Your task to perform on an android device: Go to Google maps Image 0: 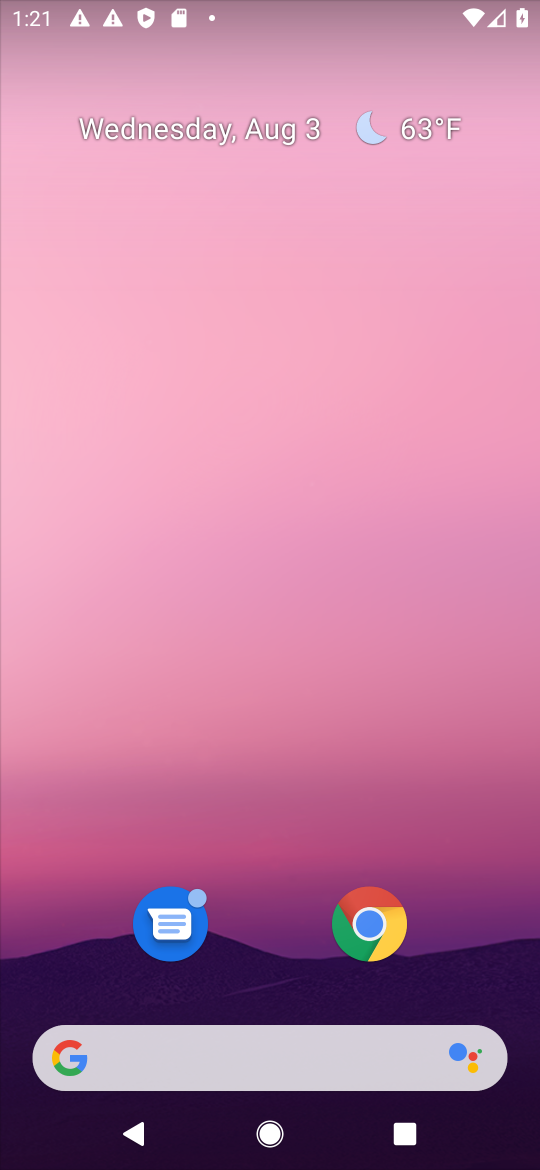
Step 0: drag from (275, 958) to (283, 92)
Your task to perform on an android device: Go to Google maps Image 1: 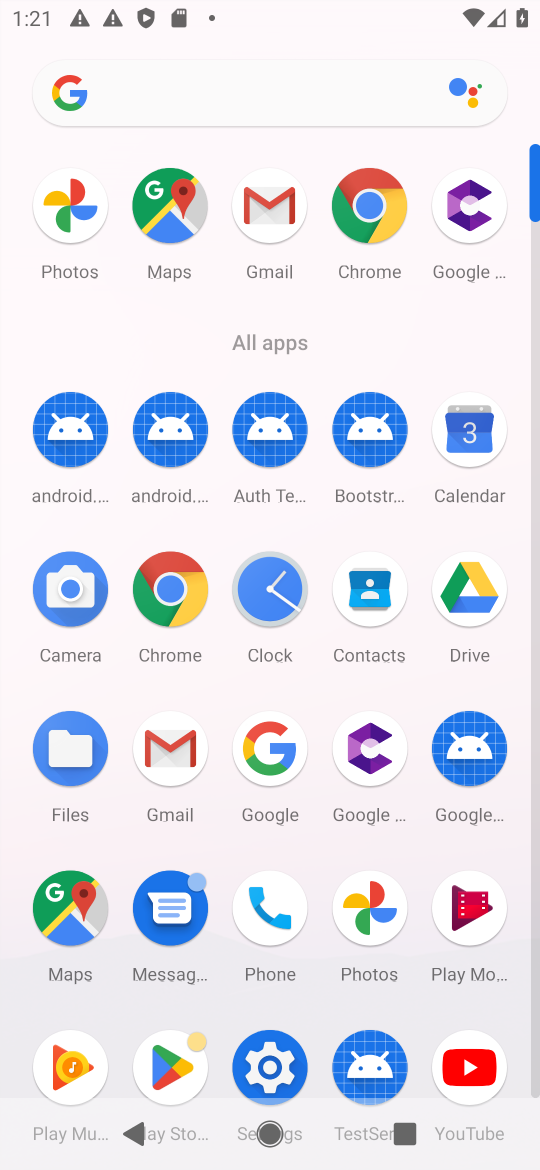
Step 1: click (84, 896)
Your task to perform on an android device: Go to Google maps Image 2: 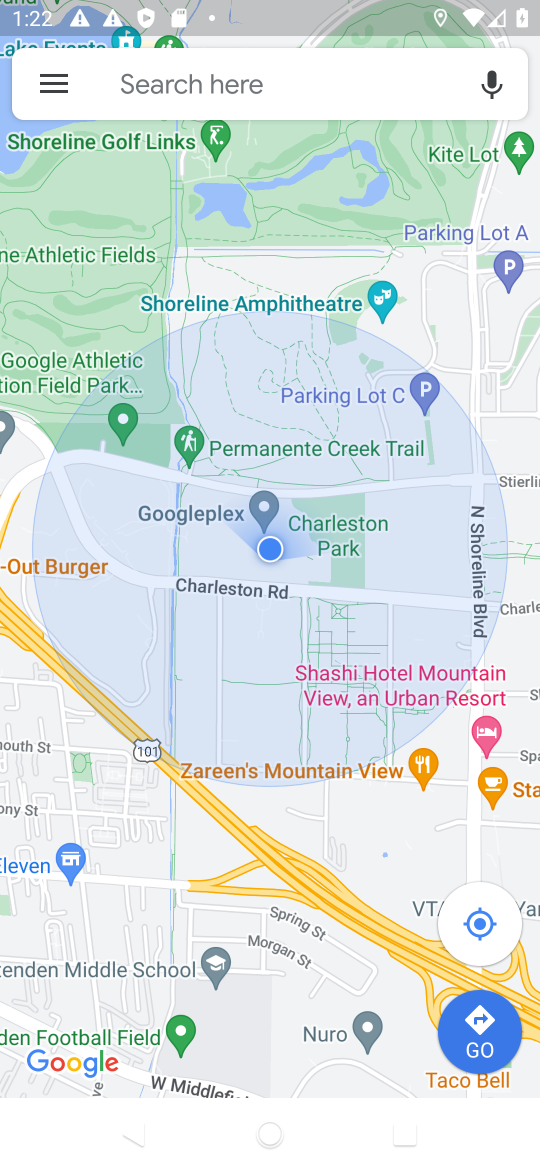
Step 2: task complete